Your task to perform on an android device: turn on translation in the chrome app Image 0: 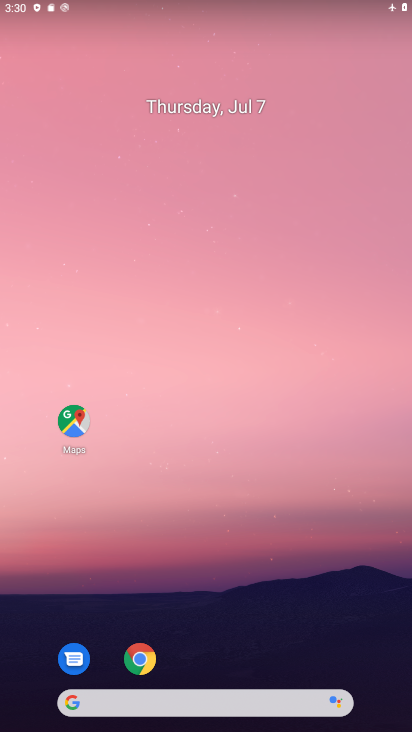
Step 0: drag from (207, 632) to (68, 82)
Your task to perform on an android device: turn on translation in the chrome app Image 1: 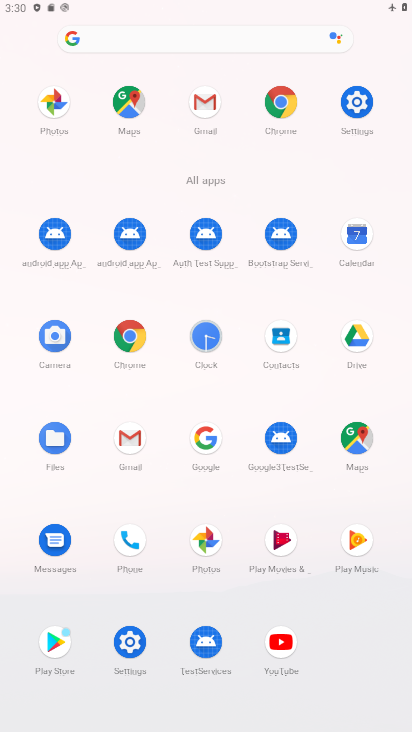
Step 1: click (131, 350)
Your task to perform on an android device: turn on translation in the chrome app Image 2: 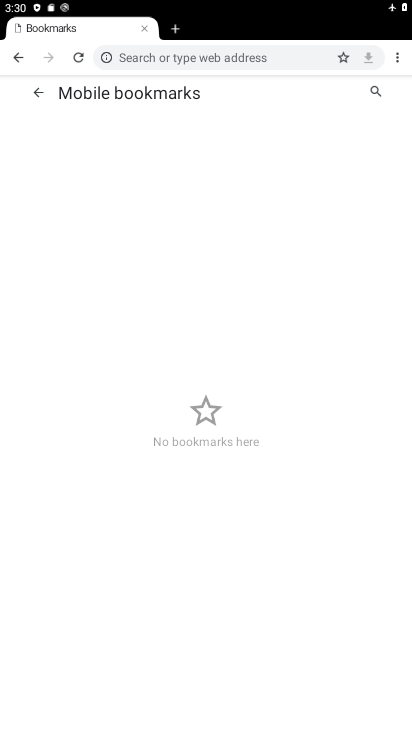
Step 2: click (395, 55)
Your task to perform on an android device: turn on translation in the chrome app Image 3: 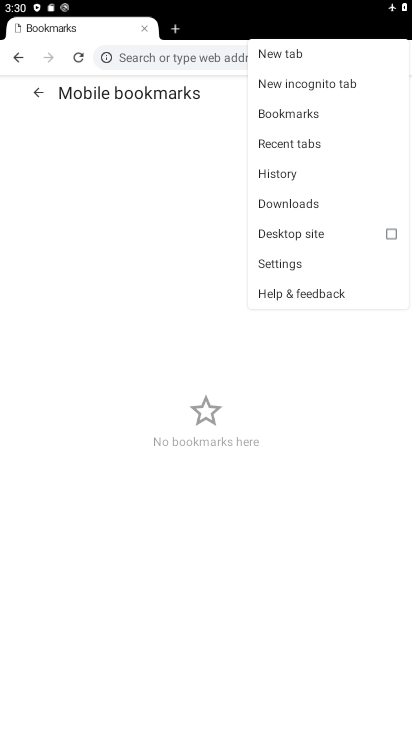
Step 3: click (280, 265)
Your task to perform on an android device: turn on translation in the chrome app Image 4: 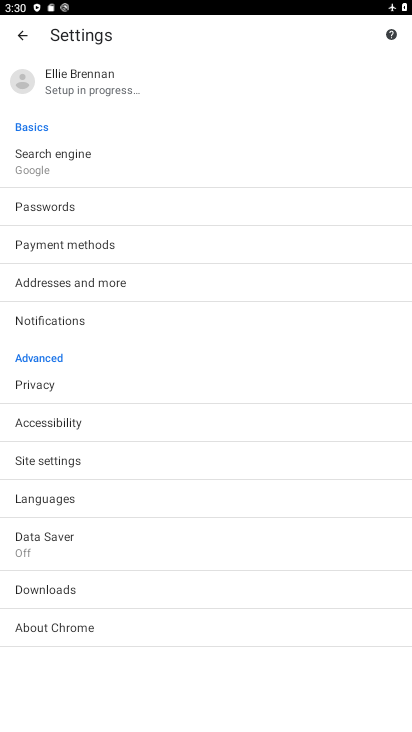
Step 4: click (70, 500)
Your task to perform on an android device: turn on translation in the chrome app Image 5: 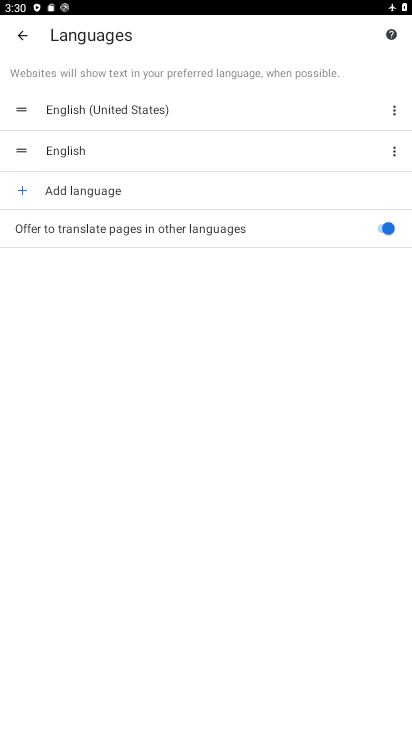
Step 5: task complete